Your task to perform on an android device: Open Chrome and go to the settings page Image 0: 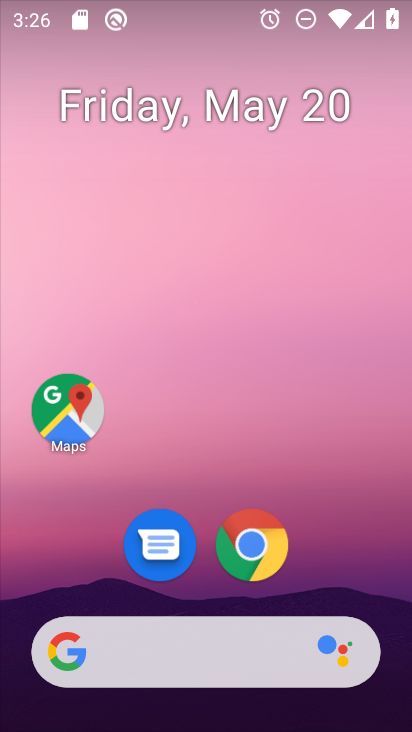
Step 0: click (253, 548)
Your task to perform on an android device: Open Chrome and go to the settings page Image 1: 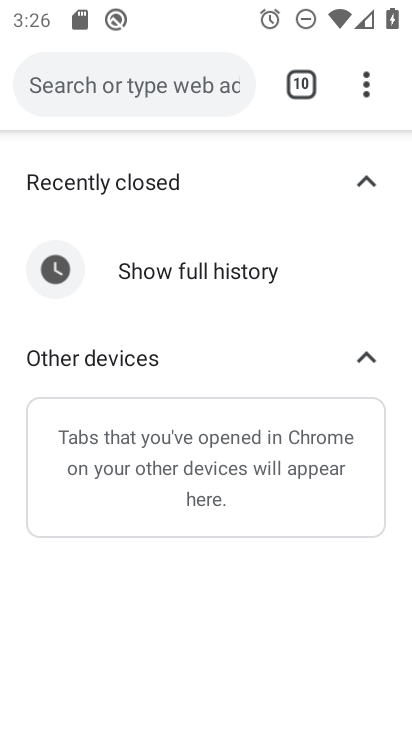
Step 1: click (377, 85)
Your task to perform on an android device: Open Chrome and go to the settings page Image 2: 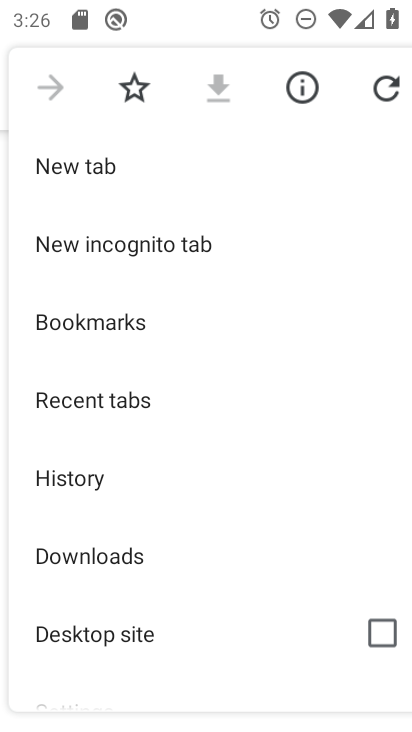
Step 2: drag from (182, 611) to (184, 246)
Your task to perform on an android device: Open Chrome and go to the settings page Image 3: 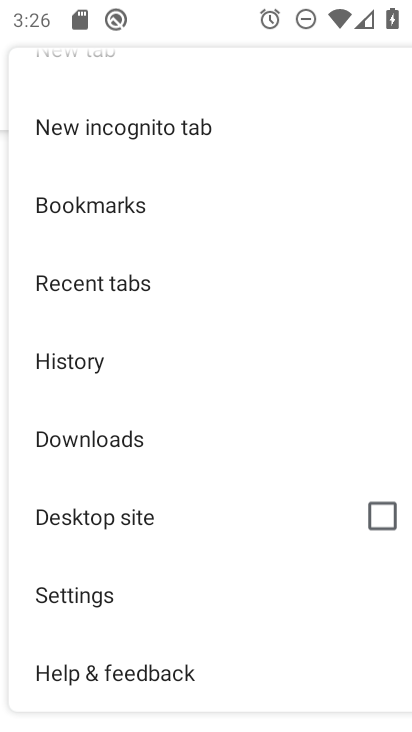
Step 3: click (88, 589)
Your task to perform on an android device: Open Chrome and go to the settings page Image 4: 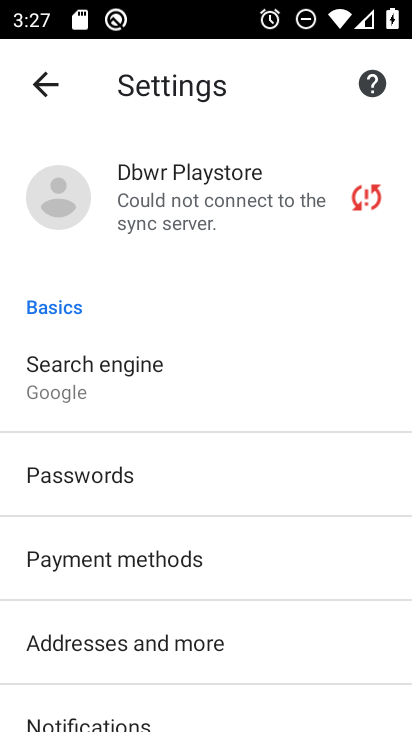
Step 4: task complete